Your task to perform on an android device: turn off javascript in the chrome app Image 0: 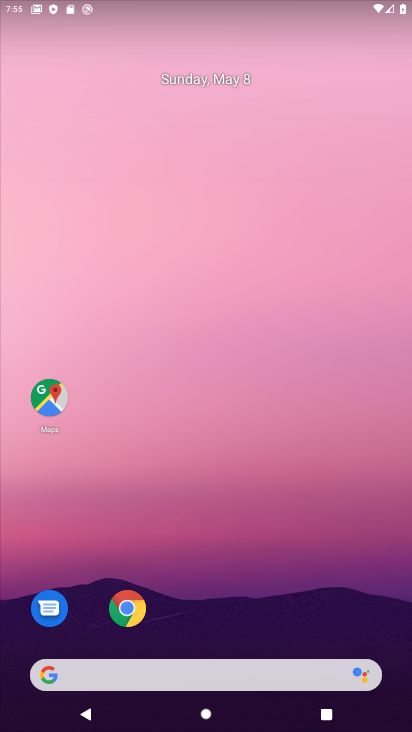
Step 0: drag from (270, 553) to (264, 328)
Your task to perform on an android device: turn off javascript in the chrome app Image 1: 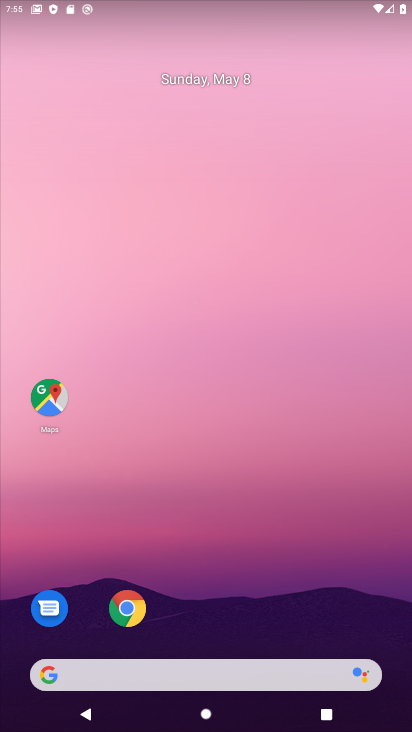
Step 1: drag from (261, 563) to (261, 240)
Your task to perform on an android device: turn off javascript in the chrome app Image 2: 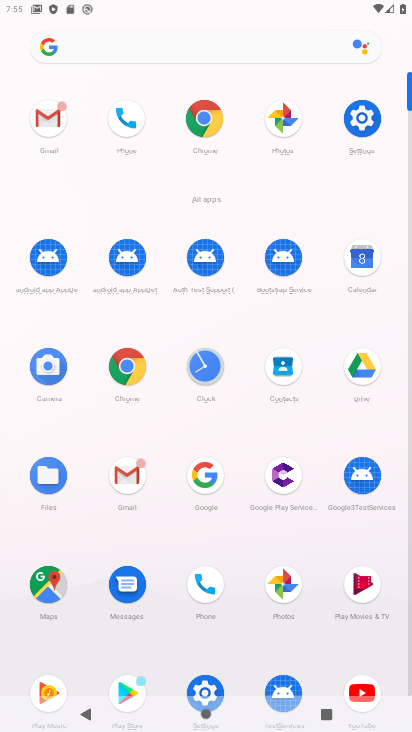
Step 2: click (114, 366)
Your task to perform on an android device: turn off javascript in the chrome app Image 3: 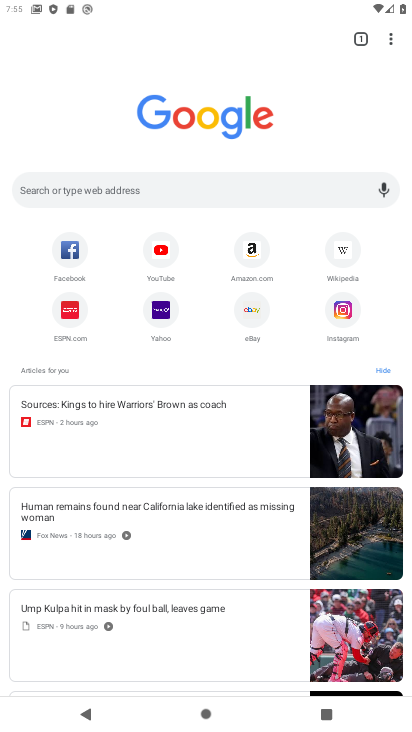
Step 3: click (386, 35)
Your task to perform on an android device: turn off javascript in the chrome app Image 4: 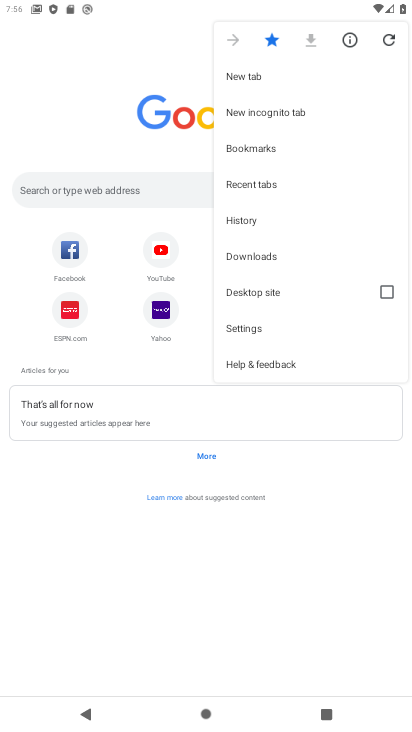
Step 4: click (253, 325)
Your task to perform on an android device: turn off javascript in the chrome app Image 5: 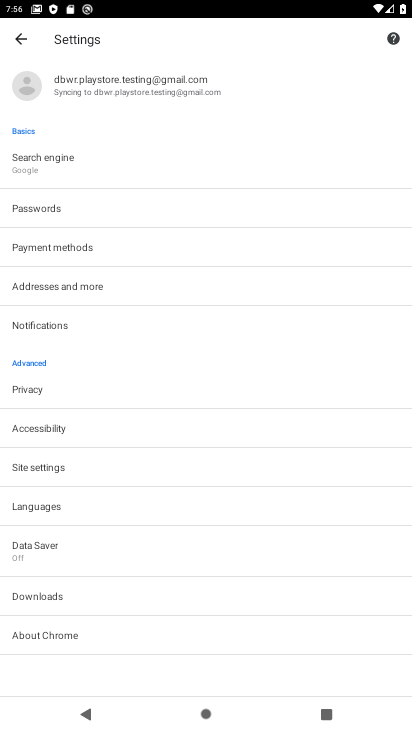
Step 5: drag from (92, 614) to (169, 364)
Your task to perform on an android device: turn off javascript in the chrome app Image 6: 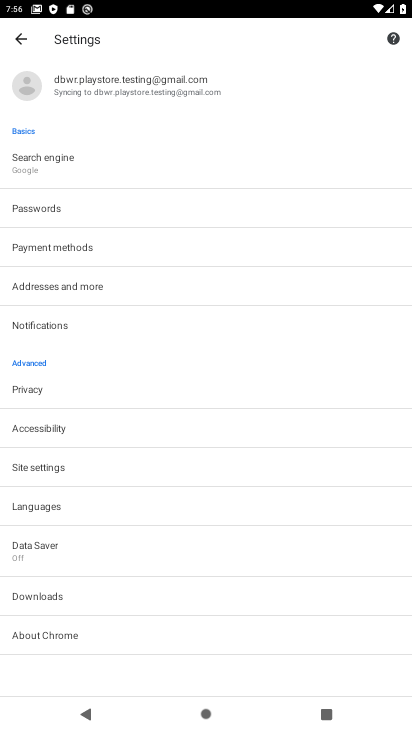
Step 6: click (75, 465)
Your task to perform on an android device: turn off javascript in the chrome app Image 7: 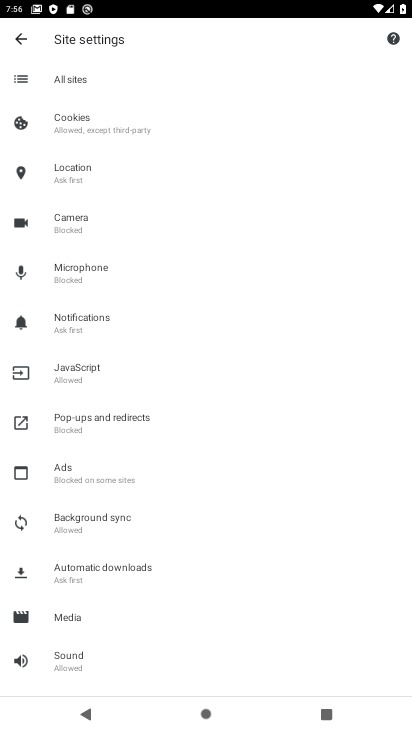
Step 7: click (96, 377)
Your task to perform on an android device: turn off javascript in the chrome app Image 8: 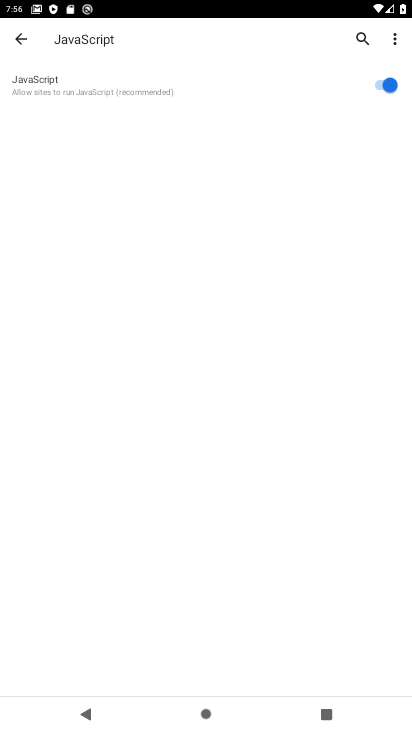
Step 8: click (379, 87)
Your task to perform on an android device: turn off javascript in the chrome app Image 9: 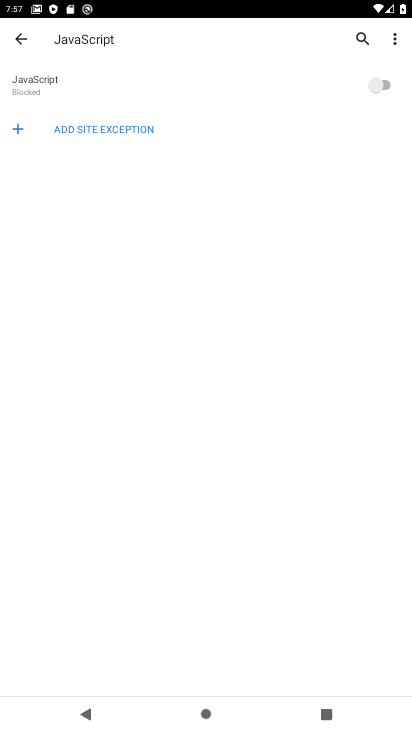
Step 9: task complete